Your task to perform on an android device: uninstall "The Home Depot" Image 0: 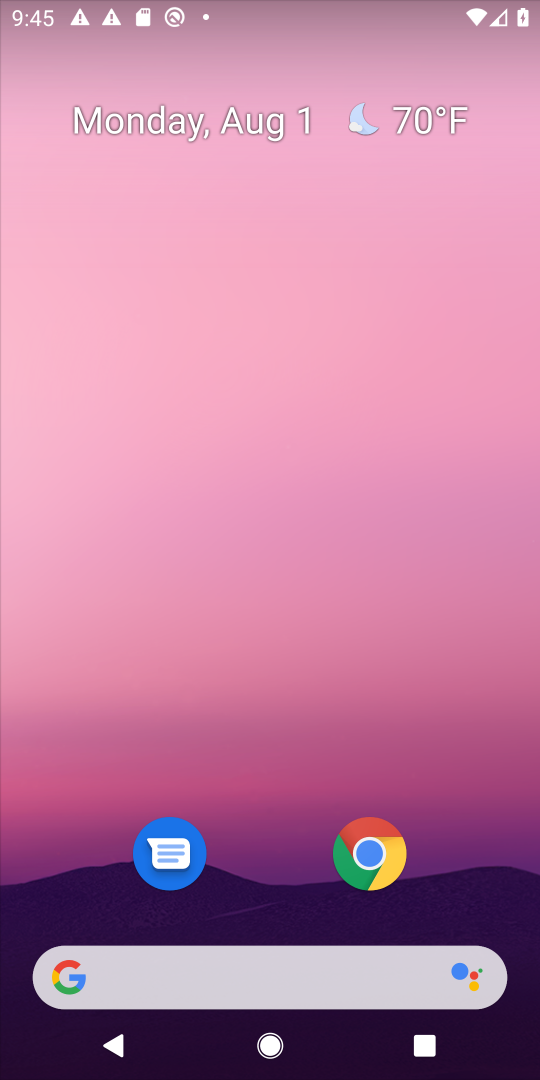
Step 0: drag from (264, 911) to (383, 14)
Your task to perform on an android device: uninstall "The Home Depot" Image 1: 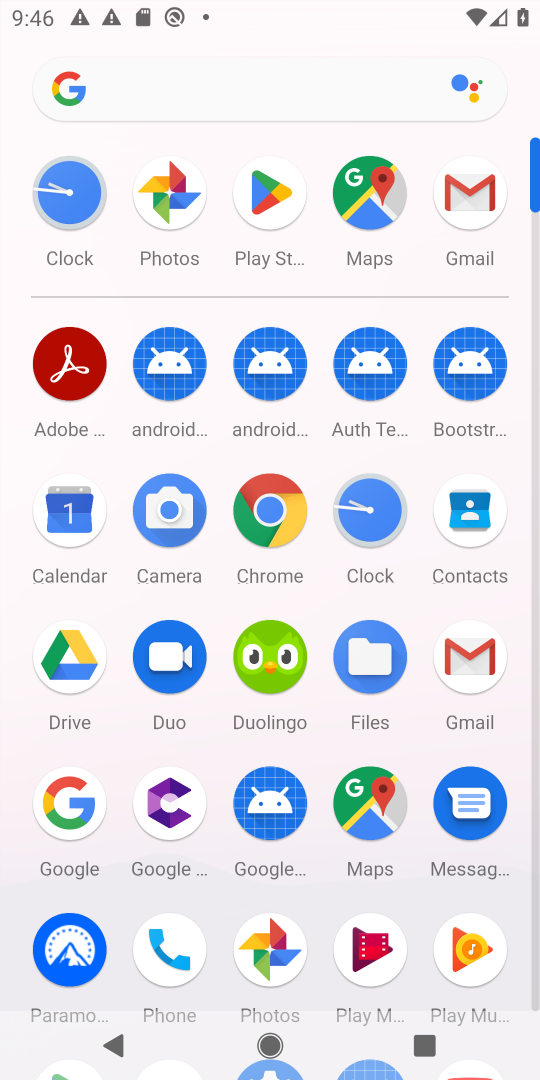
Step 1: click (275, 176)
Your task to perform on an android device: uninstall "The Home Depot" Image 2: 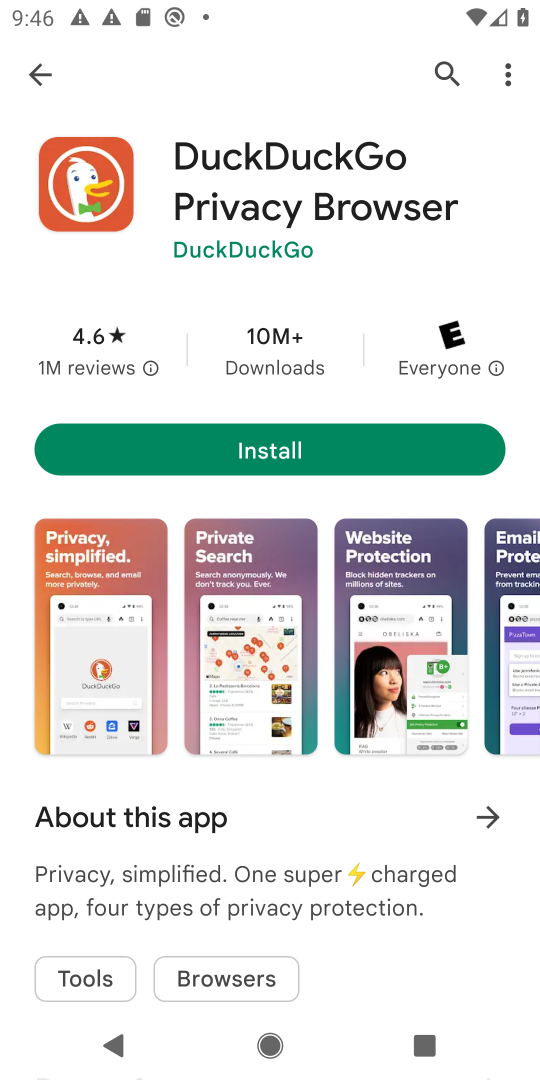
Step 2: click (461, 55)
Your task to perform on an android device: uninstall "The Home Depot" Image 3: 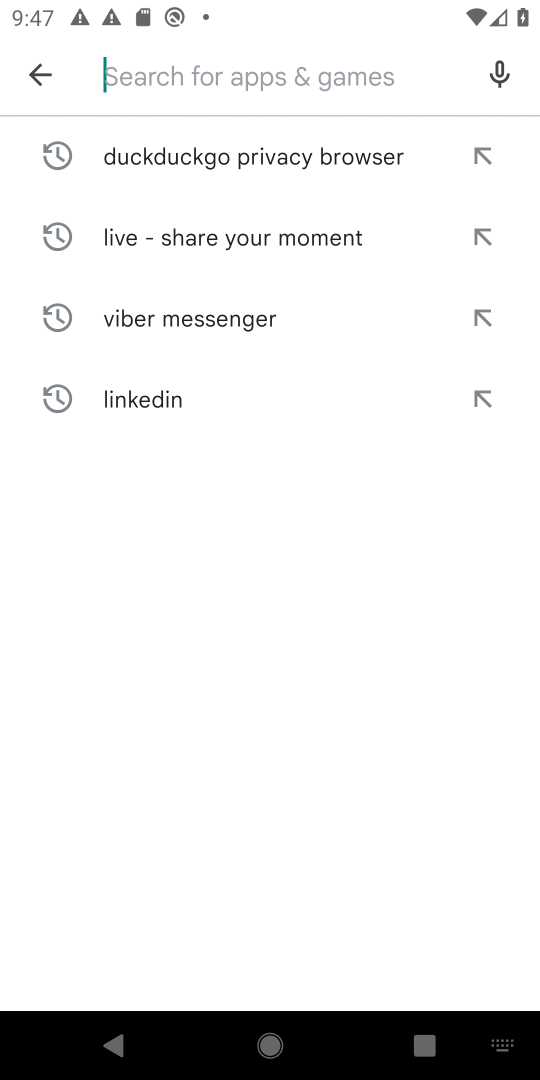
Step 3: type "The Home Depot"
Your task to perform on an android device: uninstall "The Home Depot" Image 4: 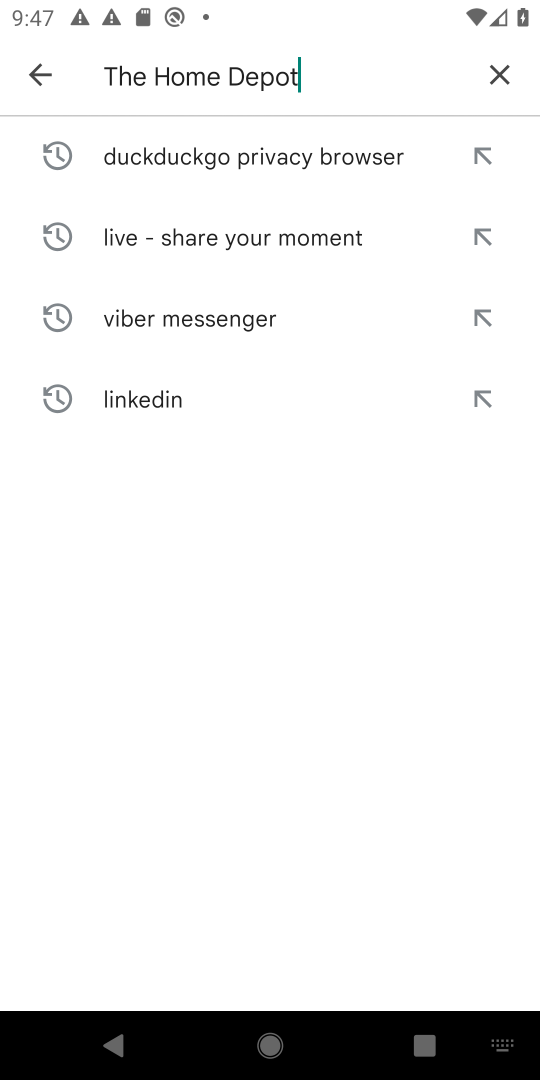
Step 4: type ""
Your task to perform on an android device: uninstall "The Home Depot" Image 5: 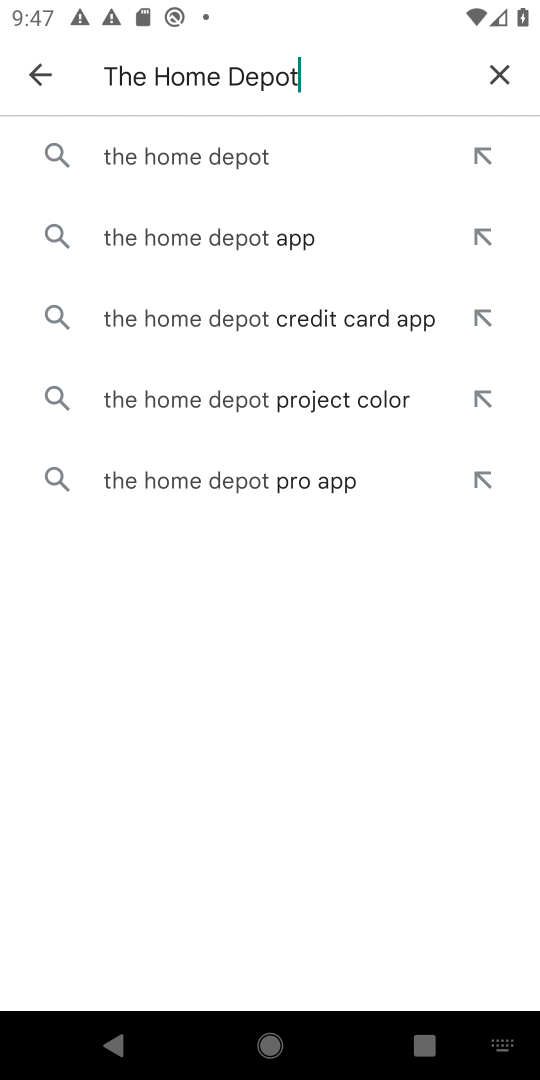
Step 5: click (262, 175)
Your task to perform on an android device: uninstall "The Home Depot" Image 6: 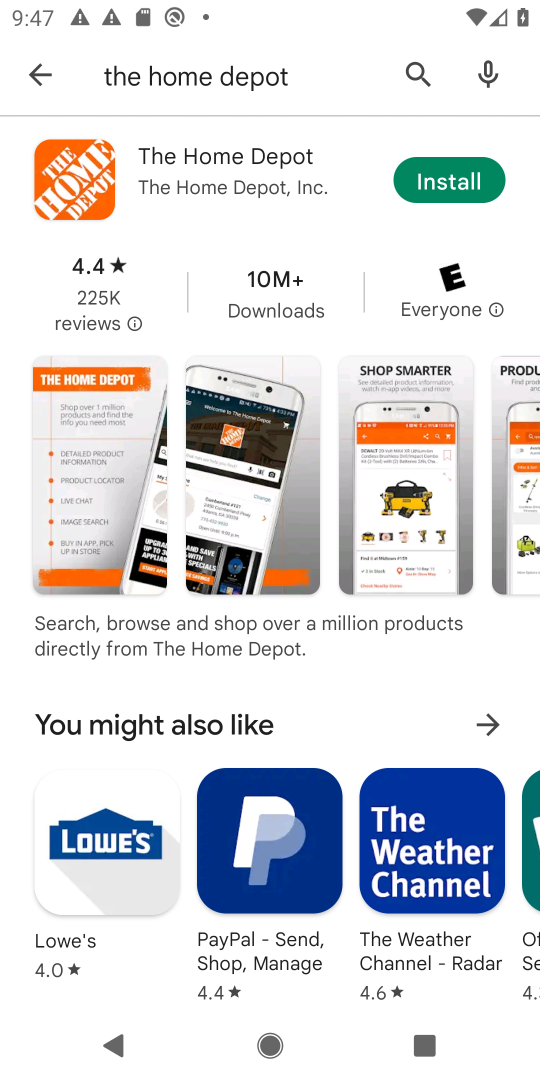
Step 6: click (184, 157)
Your task to perform on an android device: uninstall "The Home Depot" Image 7: 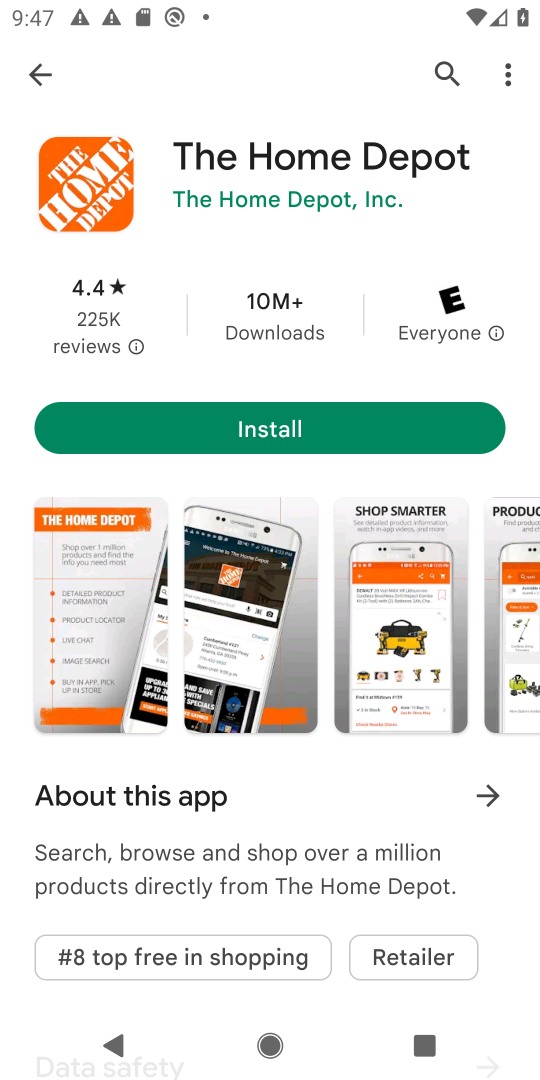
Step 7: task complete